Your task to perform on an android device: What is the speed of a jet? Image 0: 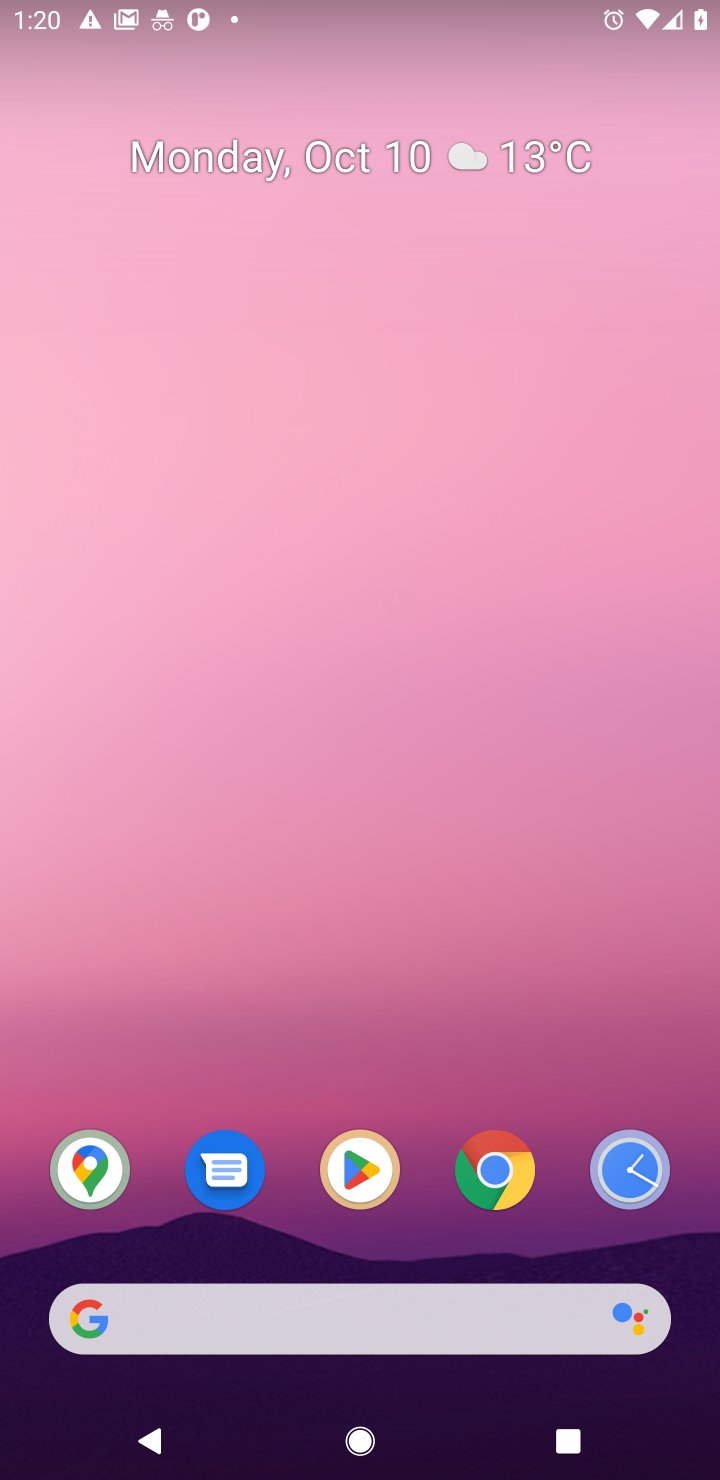
Step 0: click (516, 1189)
Your task to perform on an android device: What is the speed of a jet? Image 1: 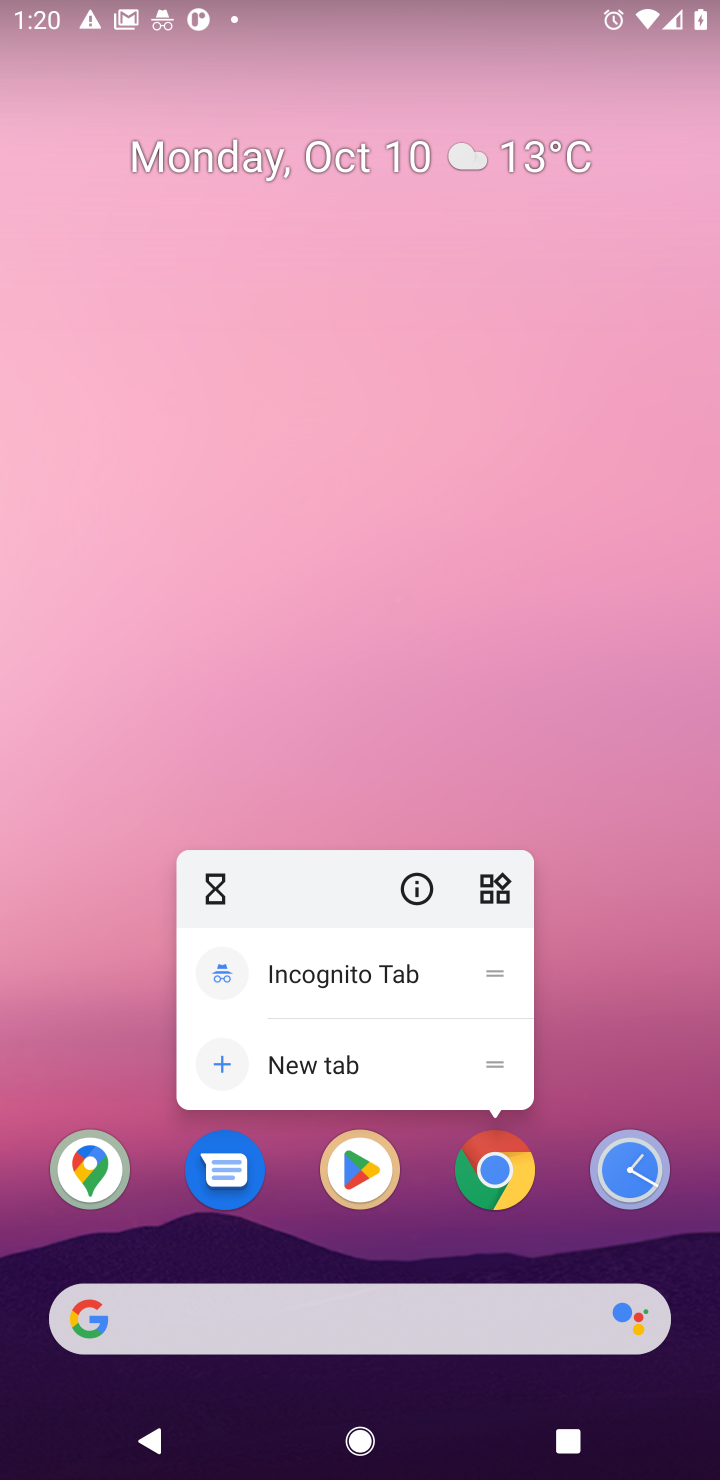
Step 1: click (516, 1189)
Your task to perform on an android device: What is the speed of a jet? Image 2: 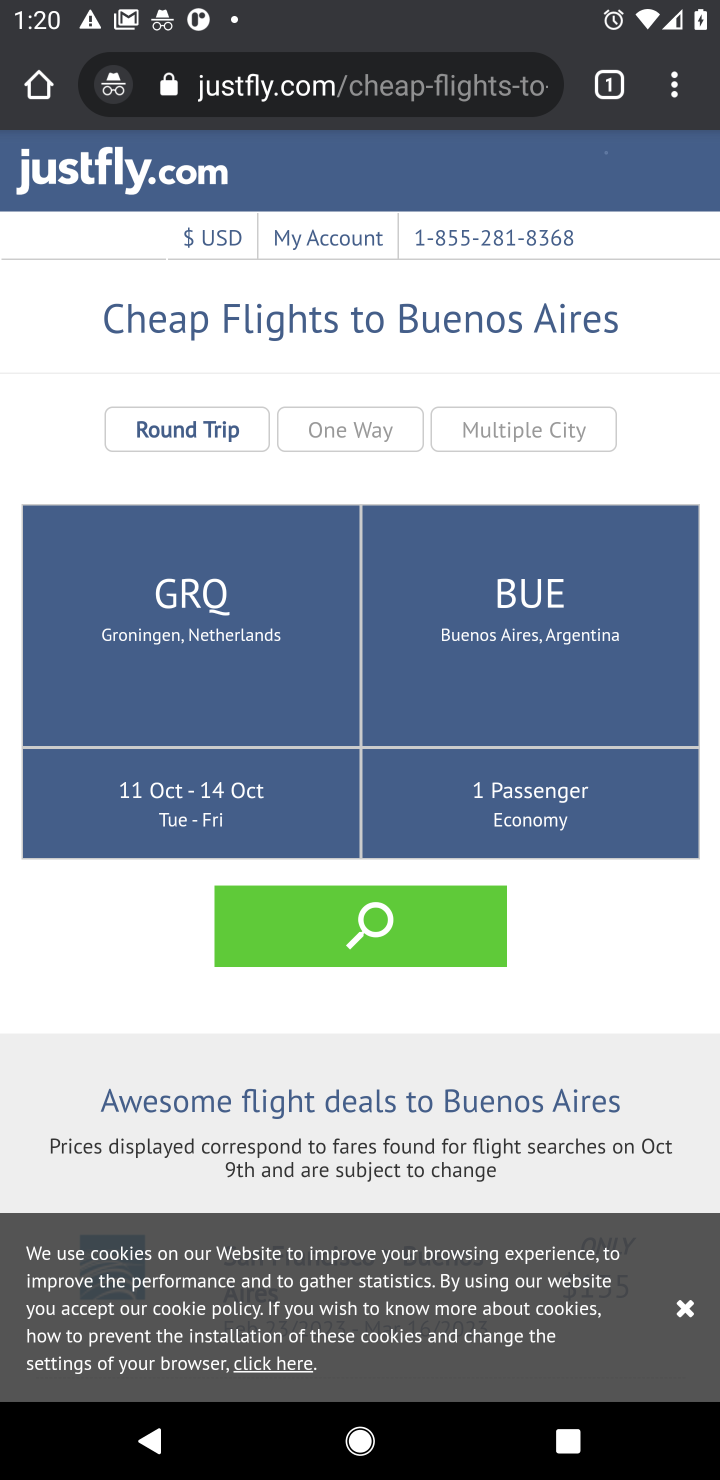
Step 2: click (321, 93)
Your task to perform on an android device: What is the speed of a jet? Image 3: 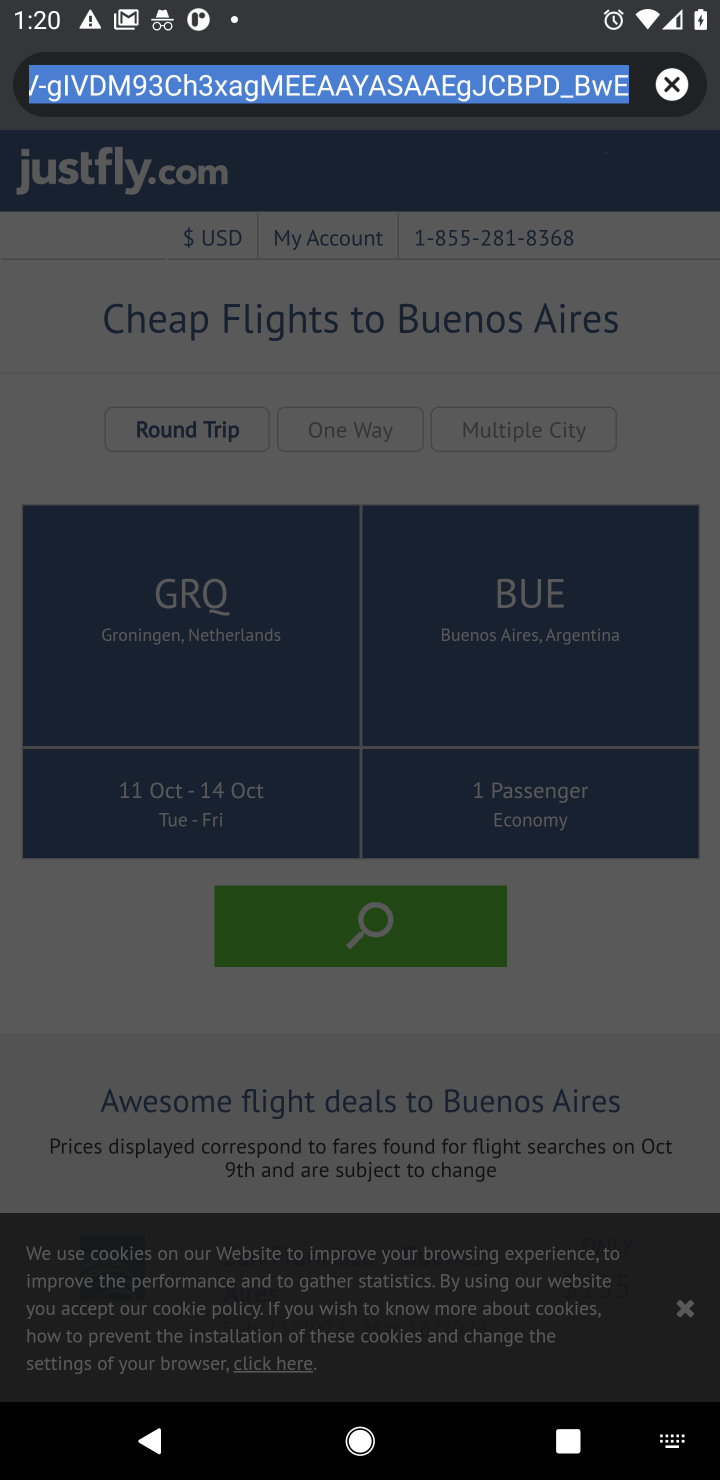
Step 3: click (676, 90)
Your task to perform on an android device: What is the speed of a jet? Image 4: 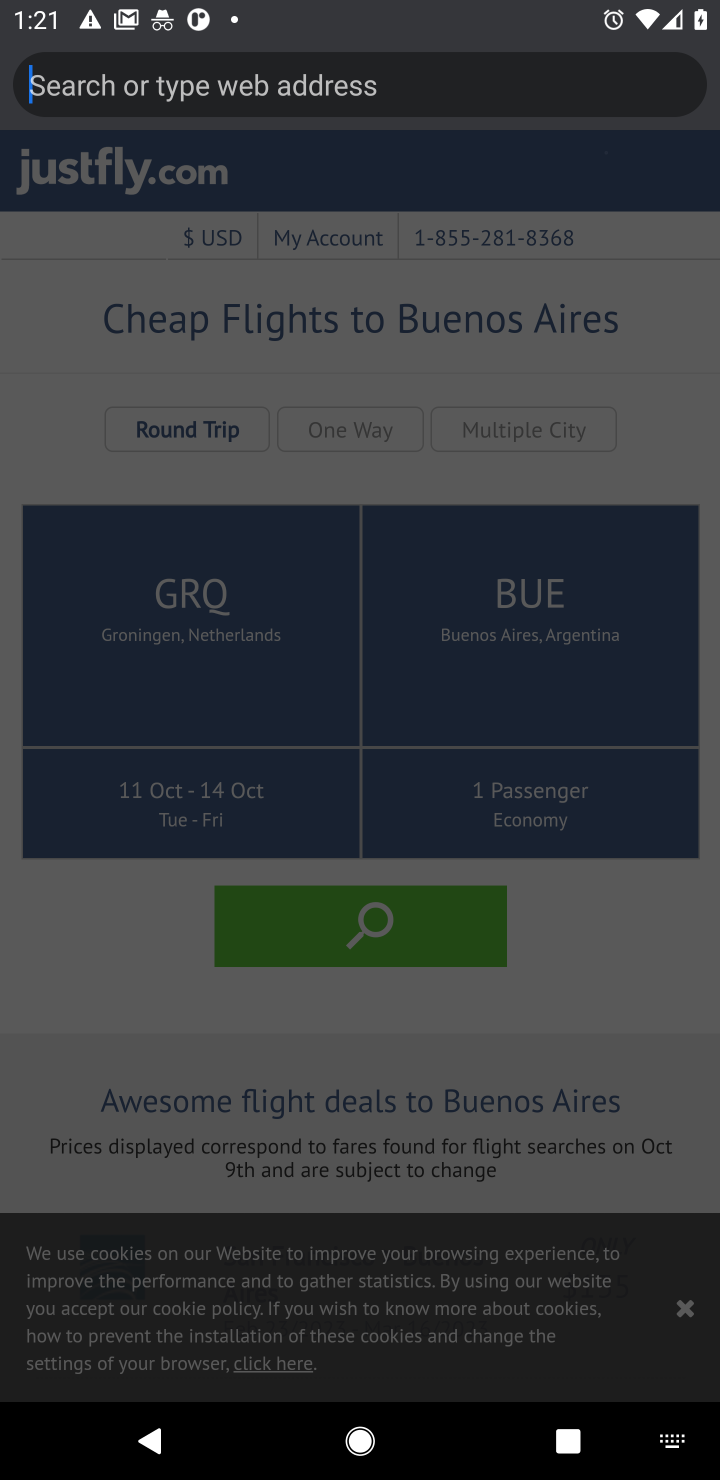
Step 4: type "what is the speed of a jet"
Your task to perform on an android device: What is the speed of a jet? Image 5: 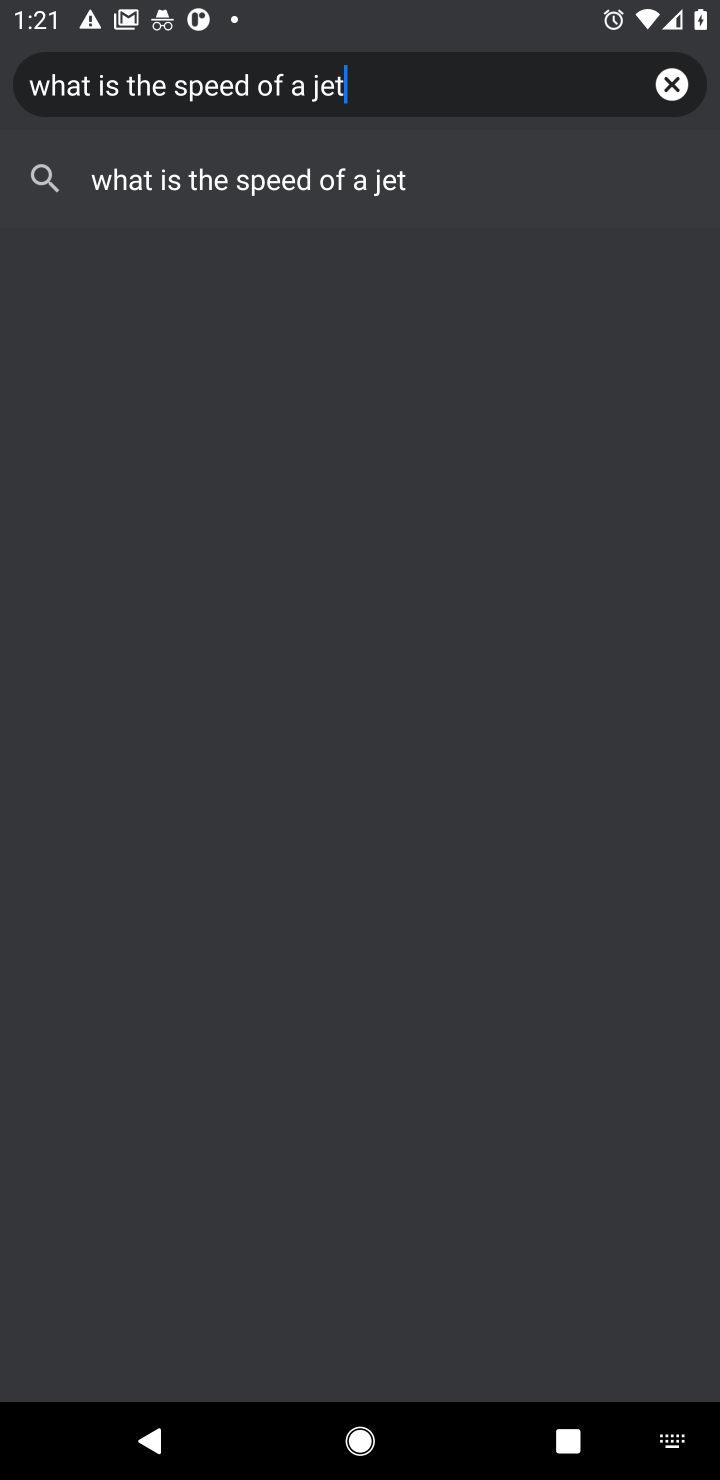
Step 5: click (344, 172)
Your task to perform on an android device: What is the speed of a jet? Image 6: 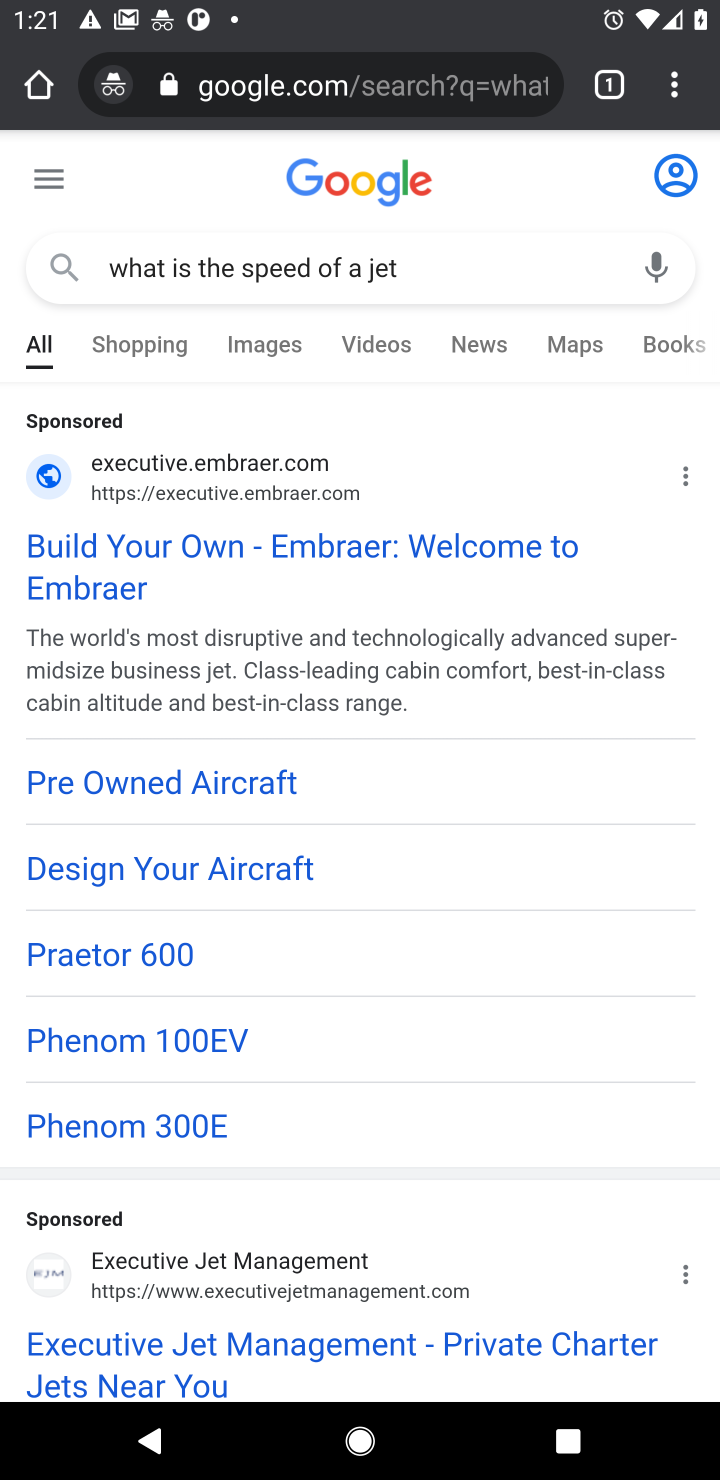
Step 6: click (177, 540)
Your task to perform on an android device: What is the speed of a jet? Image 7: 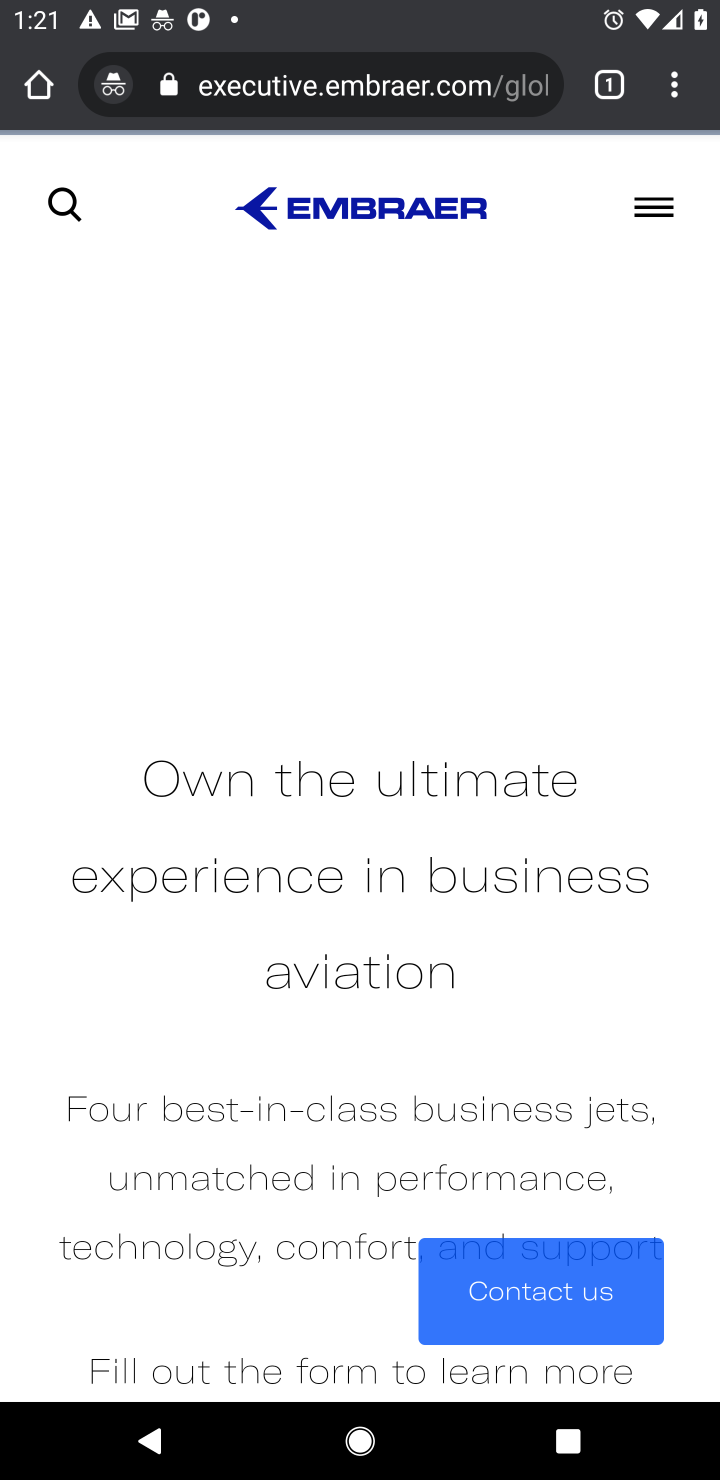
Step 7: task complete